Your task to perform on an android device: Search for sushi restaurants on Maps Image 0: 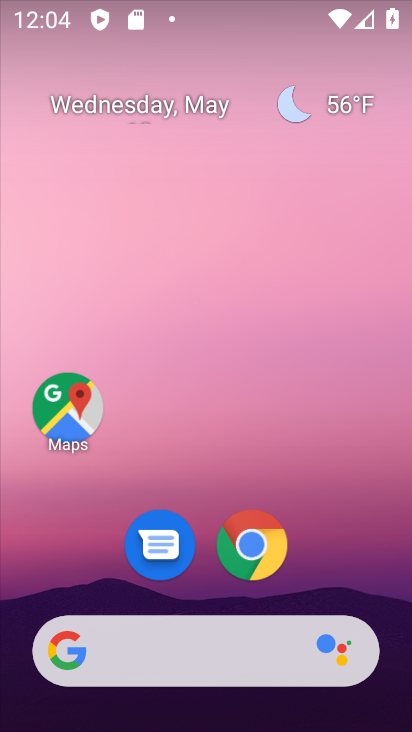
Step 0: click (69, 411)
Your task to perform on an android device: Search for sushi restaurants on Maps Image 1: 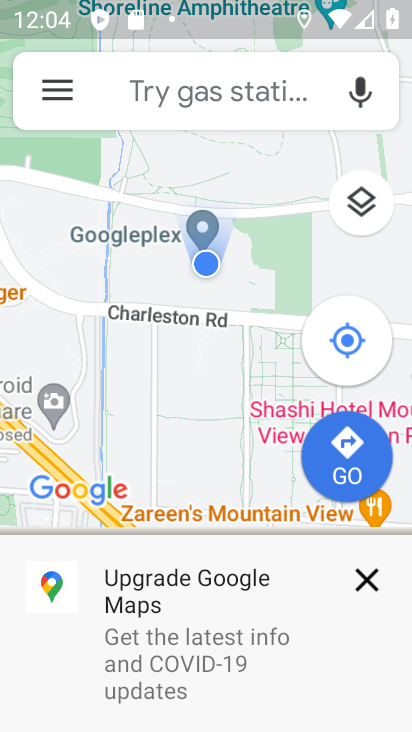
Step 1: click (232, 96)
Your task to perform on an android device: Search for sushi restaurants on Maps Image 2: 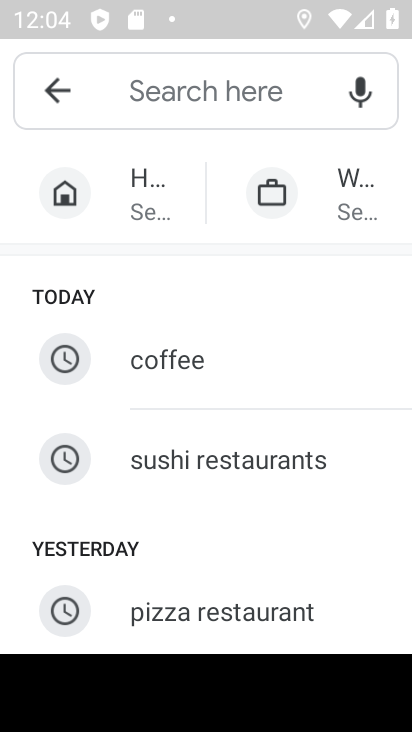
Step 2: type "sushi restaurants"
Your task to perform on an android device: Search for sushi restaurants on Maps Image 3: 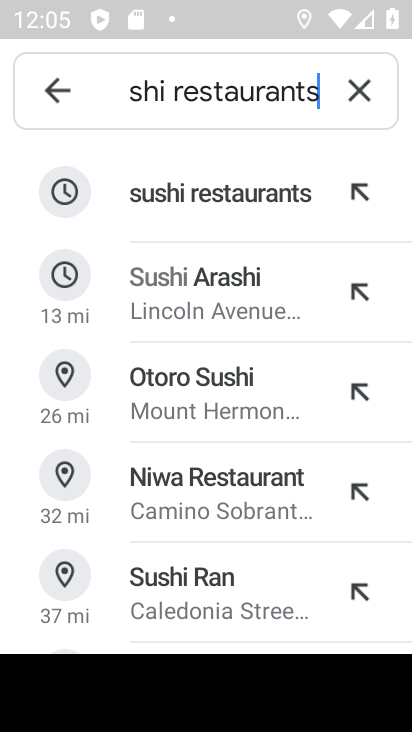
Step 3: click (185, 201)
Your task to perform on an android device: Search for sushi restaurants on Maps Image 4: 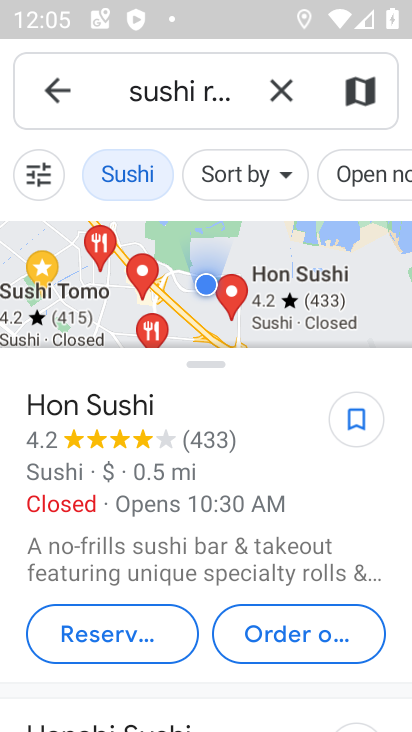
Step 4: task complete